Your task to perform on an android device: see sites visited before in the chrome app Image 0: 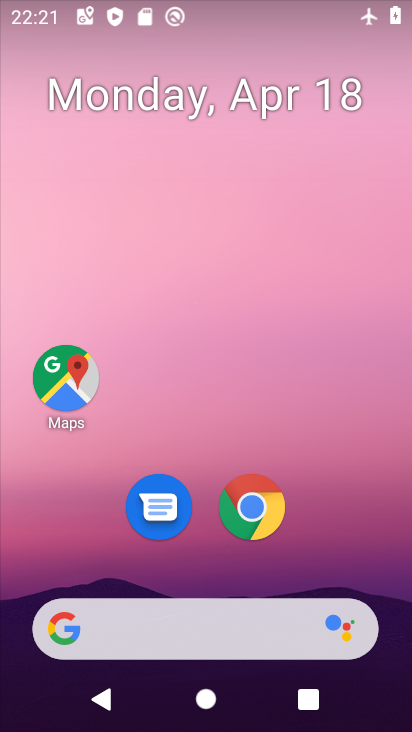
Step 0: click (267, 513)
Your task to perform on an android device: see sites visited before in the chrome app Image 1: 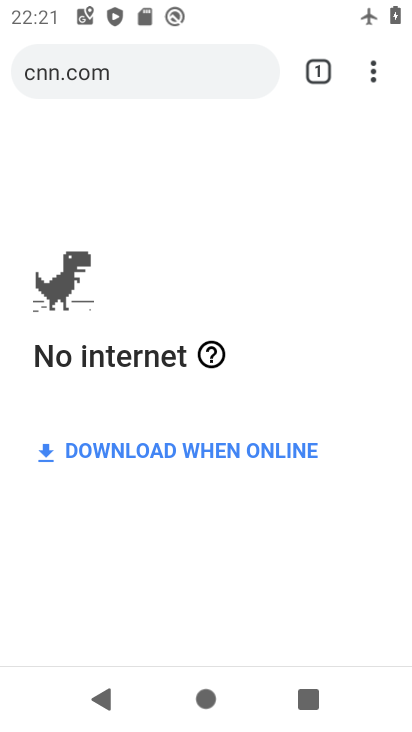
Step 1: click (371, 65)
Your task to perform on an android device: see sites visited before in the chrome app Image 2: 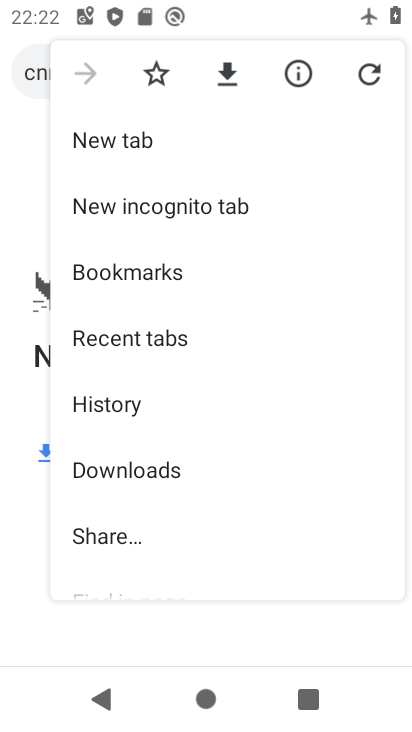
Step 2: click (190, 340)
Your task to perform on an android device: see sites visited before in the chrome app Image 3: 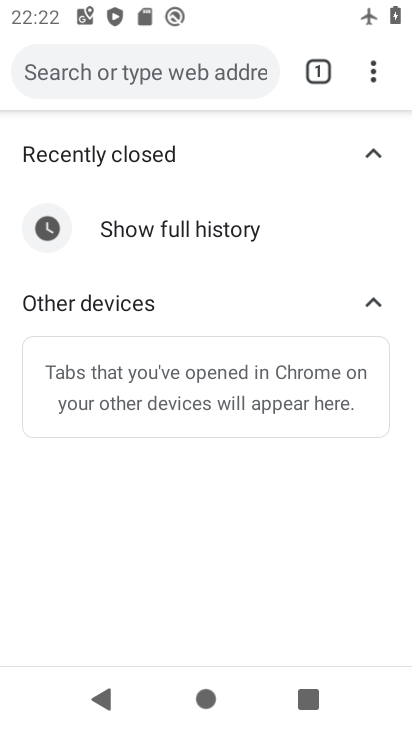
Step 3: click (150, 217)
Your task to perform on an android device: see sites visited before in the chrome app Image 4: 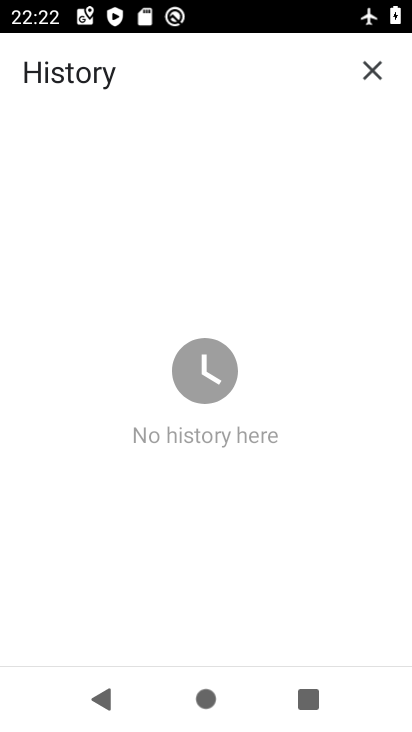
Step 4: task complete